Your task to perform on an android device: set the stopwatch Image 0: 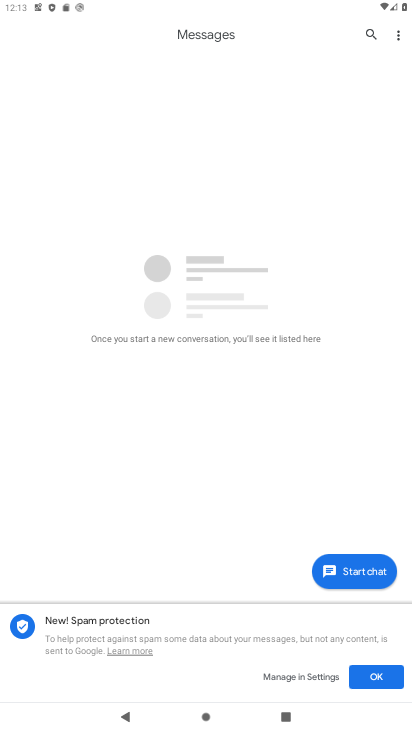
Step 0: press home button
Your task to perform on an android device: set the stopwatch Image 1: 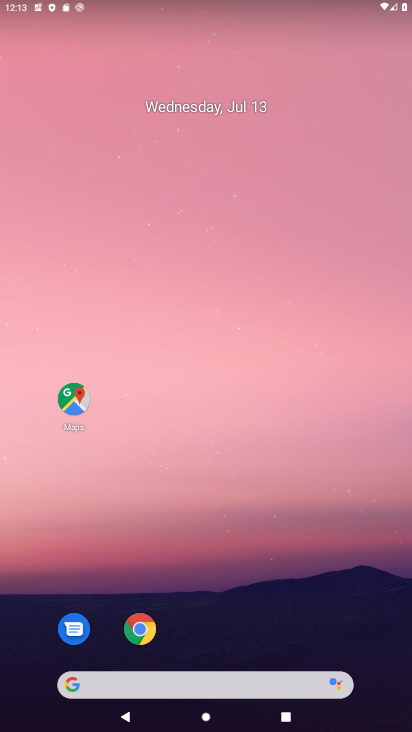
Step 1: drag from (223, 648) to (157, 241)
Your task to perform on an android device: set the stopwatch Image 2: 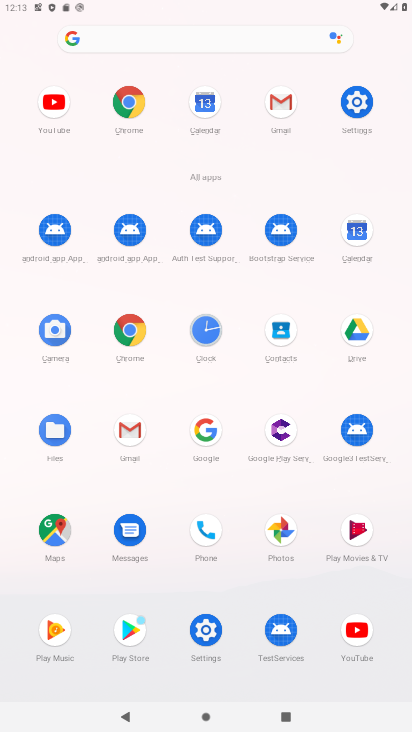
Step 2: click (204, 334)
Your task to perform on an android device: set the stopwatch Image 3: 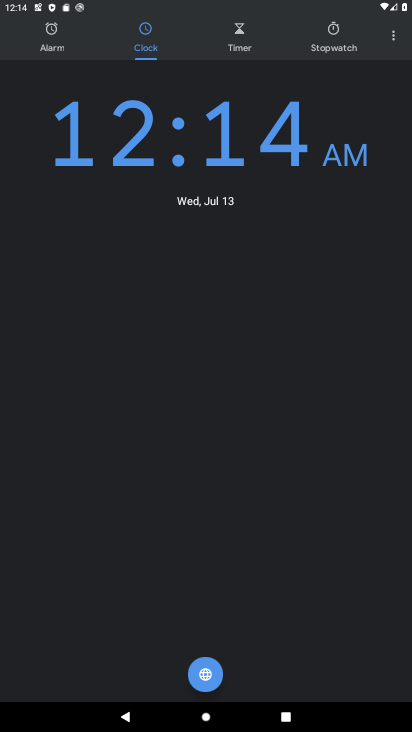
Step 3: click (328, 39)
Your task to perform on an android device: set the stopwatch Image 4: 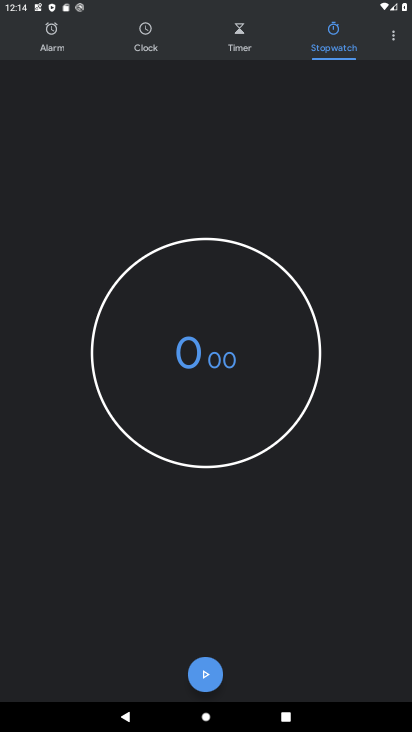
Step 4: click (207, 676)
Your task to perform on an android device: set the stopwatch Image 5: 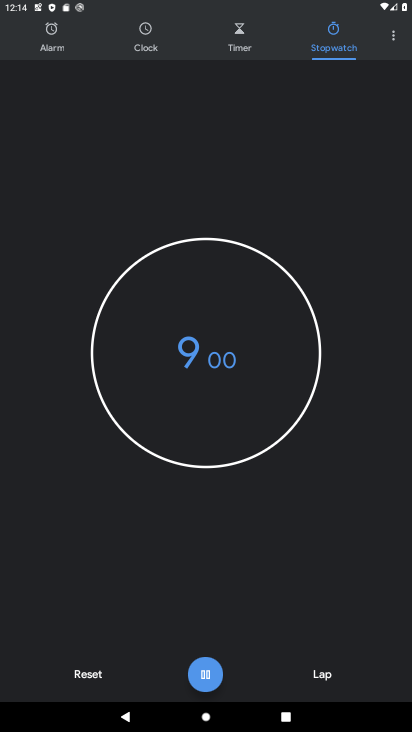
Step 5: task complete